Your task to perform on an android device: Go to CNN.com Image 0: 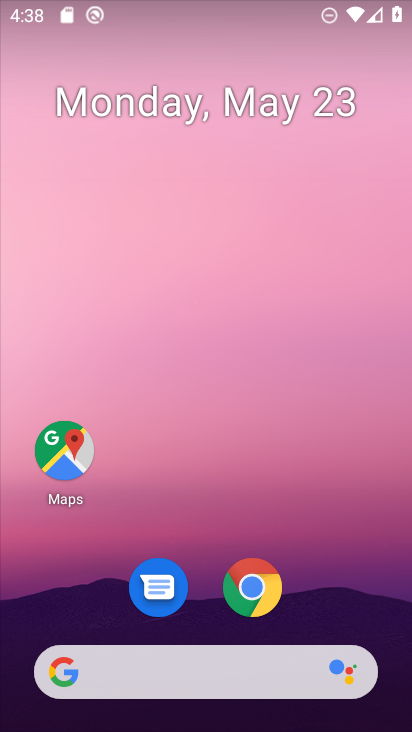
Step 0: click (264, 597)
Your task to perform on an android device: Go to CNN.com Image 1: 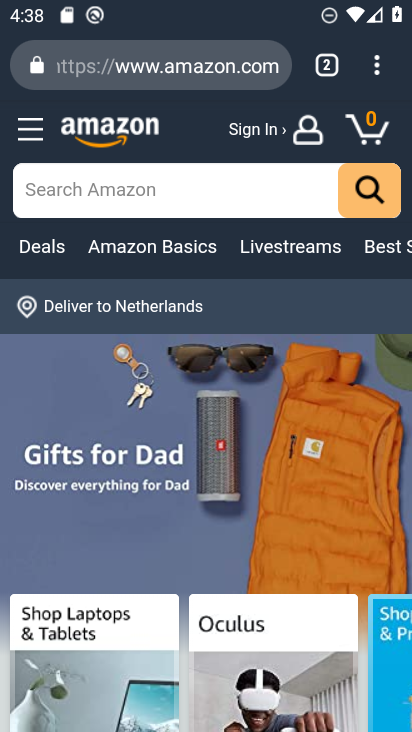
Step 1: click (178, 67)
Your task to perform on an android device: Go to CNN.com Image 2: 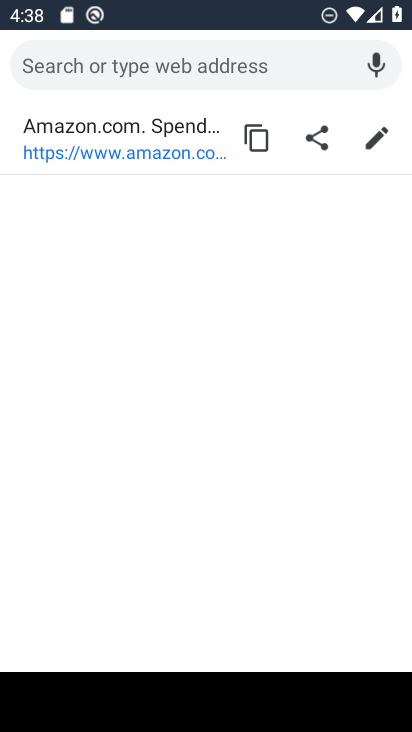
Step 2: type "CNN.com"
Your task to perform on an android device: Go to CNN.com Image 3: 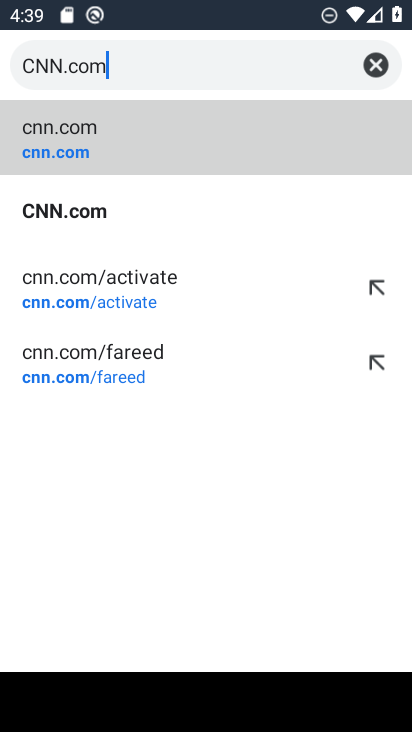
Step 3: click (142, 160)
Your task to perform on an android device: Go to CNN.com Image 4: 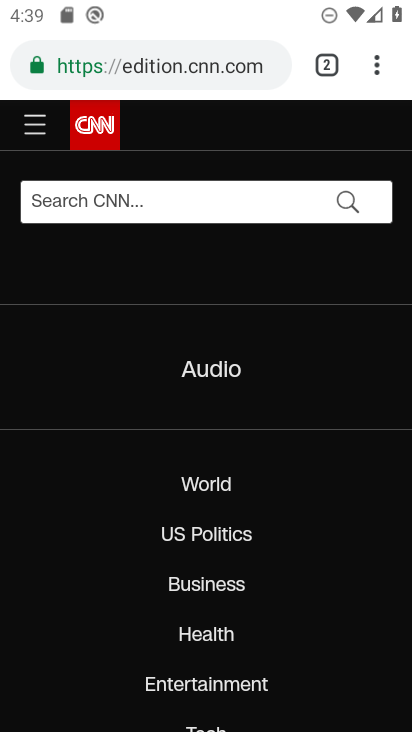
Step 4: click (329, 440)
Your task to perform on an android device: Go to CNN.com Image 5: 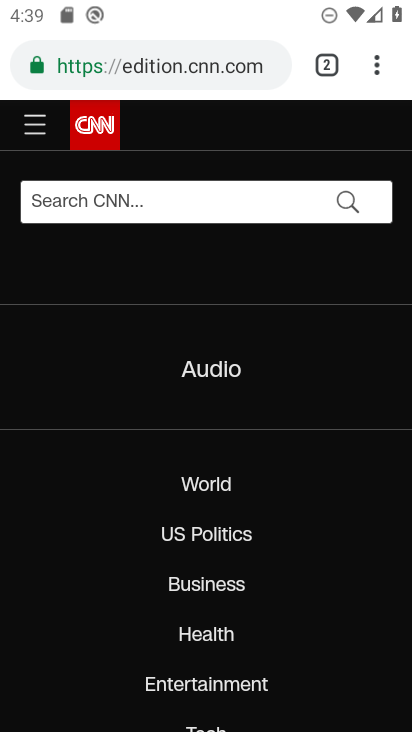
Step 5: task complete